Your task to perform on an android device: What's the weather today? Image 0: 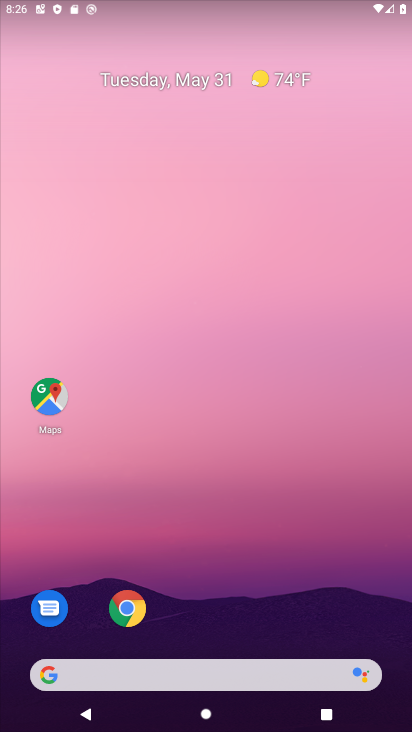
Step 0: click (176, 662)
Your task to perform on an android device: What's the weather today? Image 1: 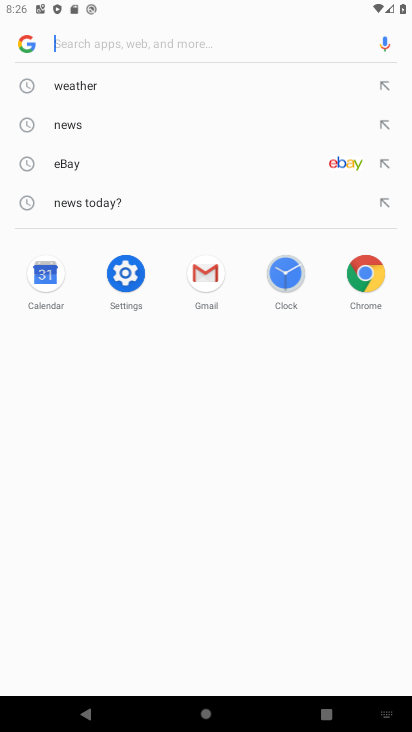
Step 1: click (58, 90)
Your task to perform on an android device: What's the weather today? Image 2: 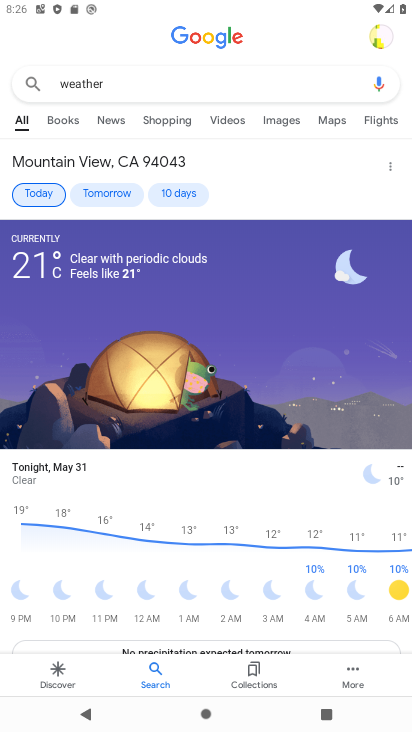
Step 2: click (20, 185)
Your task to perform on an android device: What's the weather today? Image 3: 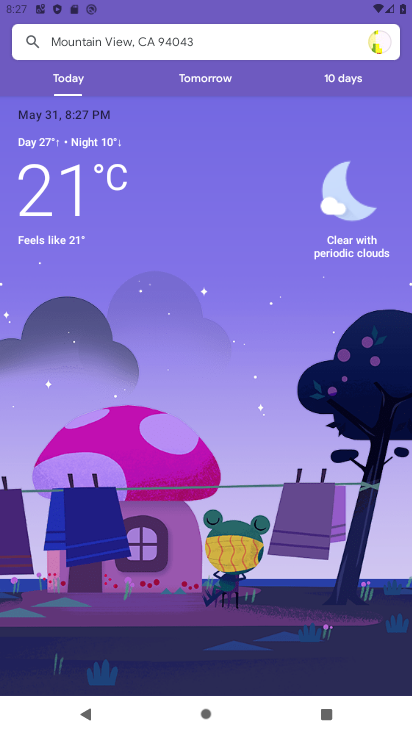
Step 3: task complete